Your task to perform on an android device: turn on sleep mode Image 0: 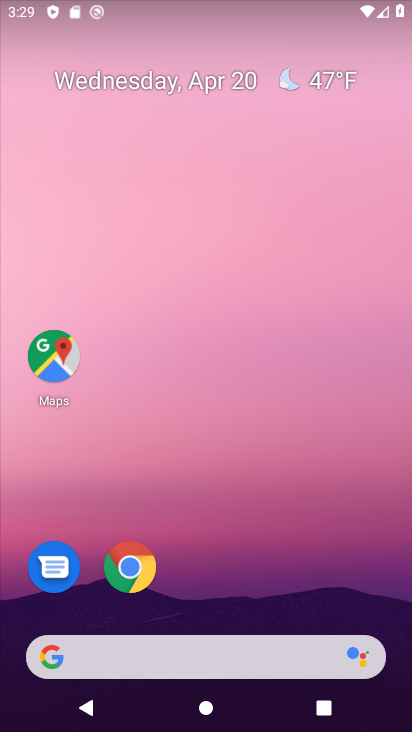
Step 0: drag from (197, 13) to (268, 588)
Your task to perform on an android device: turn on sleep mode Image 1: 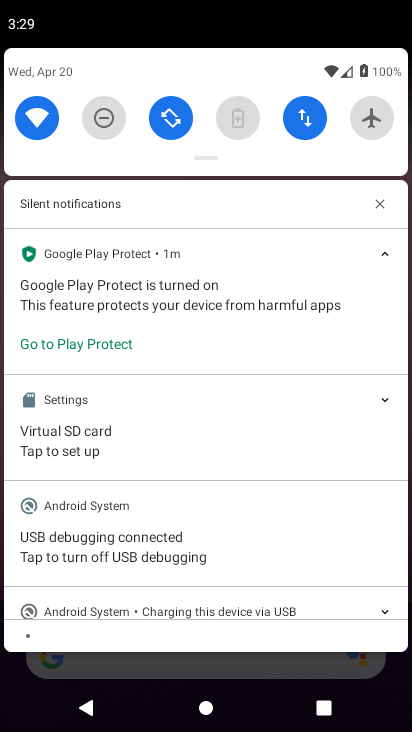
Step 1: drag from (198, 78) to (167, 707)
Your task to perform on an android device: turn on sleep mode Image 2: 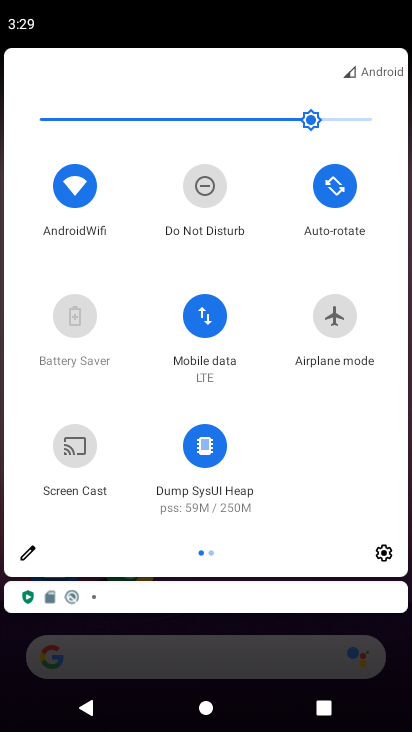
Step 2: click (394, 548)
Your task to perform on an android device: turn on sleep mode Image 3: 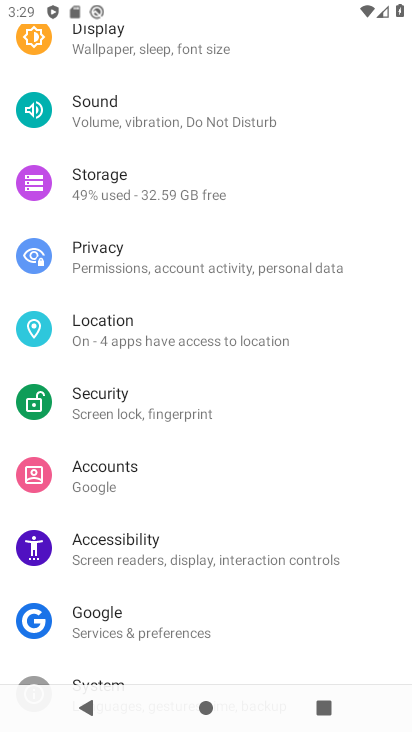
Step 3: task complete